Your task to perform on an android device: Go to internet settings Image 0: 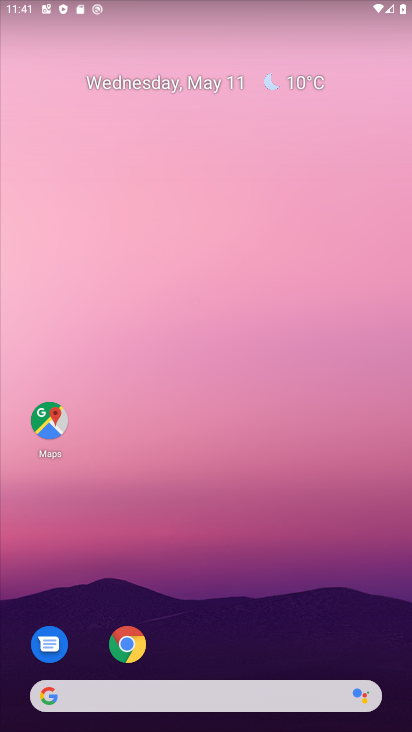
Step 0: press home button
Your task to perform on an android device: Go to internet settings Image 1: 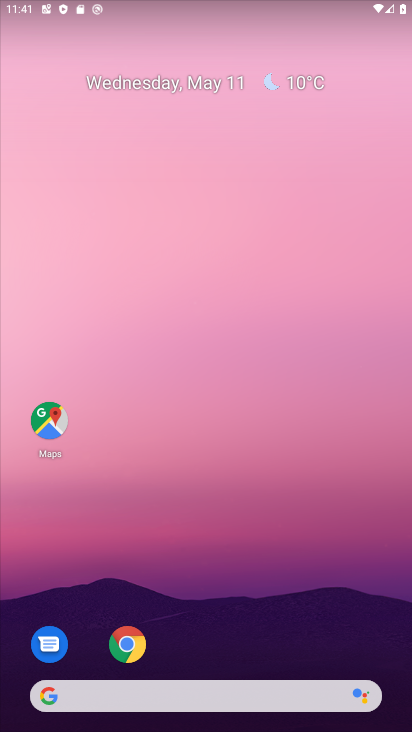
Step 1: drag from (277, 640) to (272, 77)
Your task to perform on an android device: Go to internet settings Image 2: 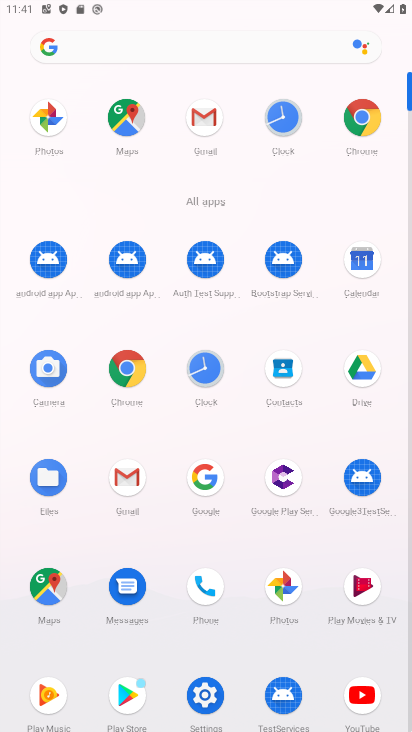
Step 2: click (208, 672)
Your task to perform on an android device: Go to internet settings Image 3: 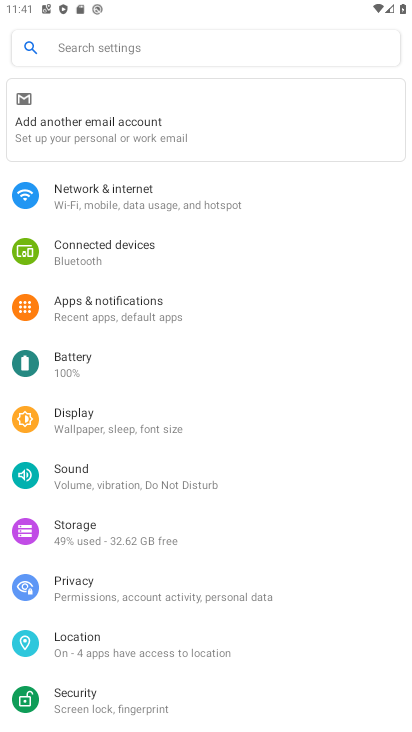
Step 3: click (117, 190)
Your task to perform on an android device: Go to internet settings Image 4: 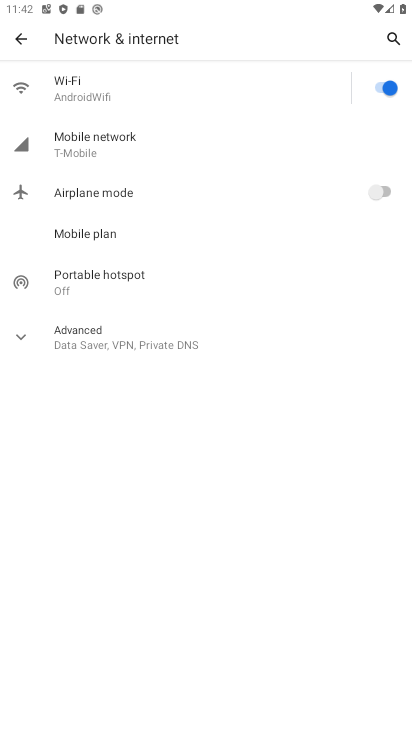
Step 4: task complete